Your task to perform on an android device: change text size in settings app Image 0: 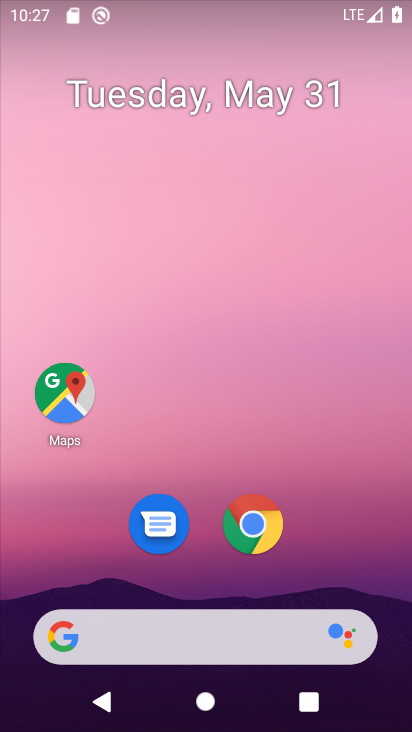
Step 0: drag from (219, 448) to (256, 1)
Your task to perform on an android device: change text size in settings app Image 1: 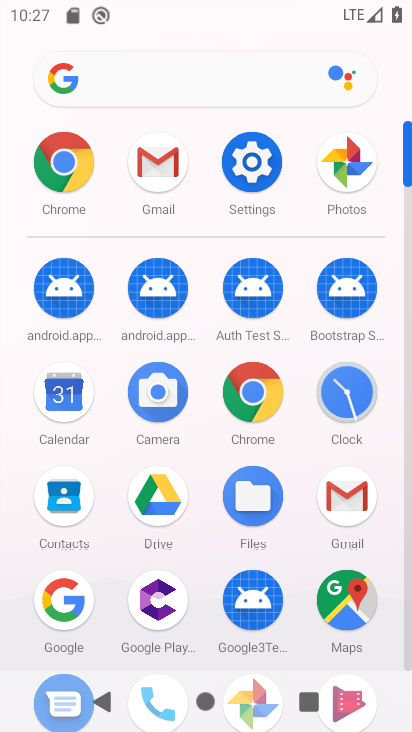
Step 1: click (260, 156)
Your task to perform on an android device: change text size in settings app Image 2: 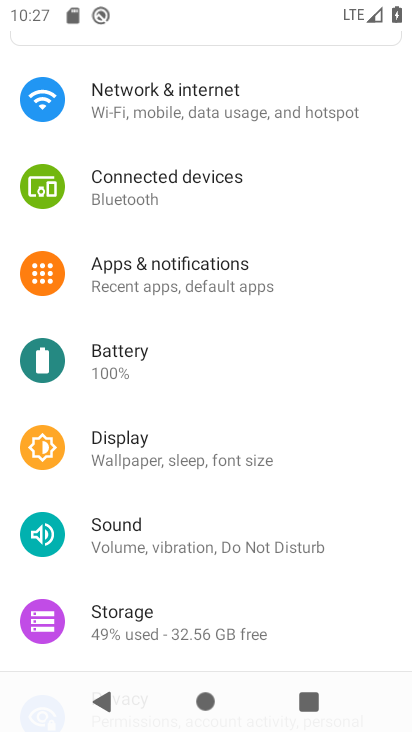
Step 2: click (184, 446)
Your task to perform on an android device: change text size in settings app Image 3: 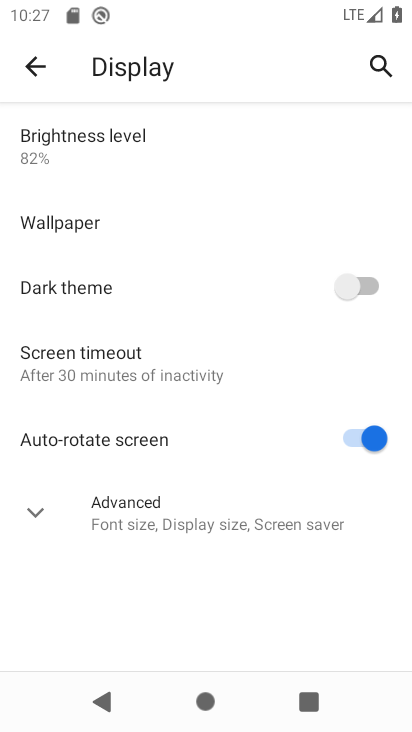
Step 3: click (30, 502)
Your task to perform on an android device: change text size in settings app Image 4: 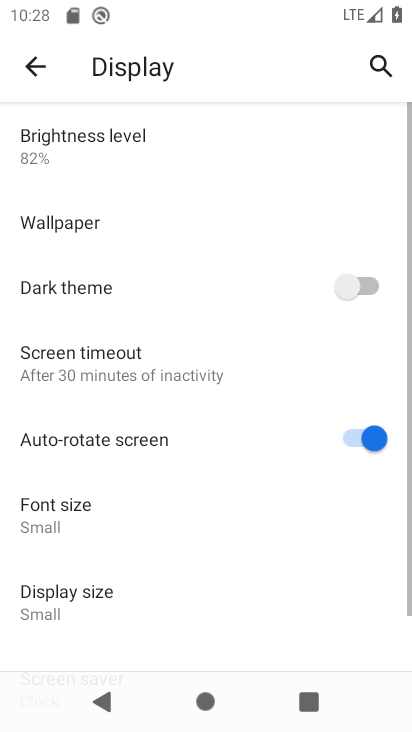
Step 4: click (55, 529)
Your task to perform on an android device: change text size in settings app Image 5: 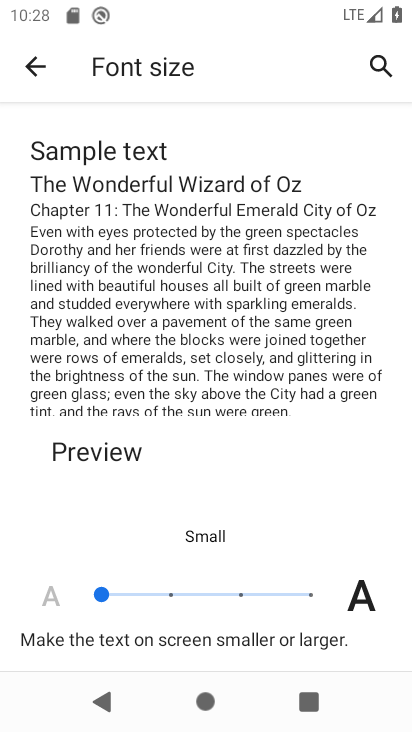
Step 5: click (166, 599)
Your task to perform on an android device: change text size in settings app Image 6: 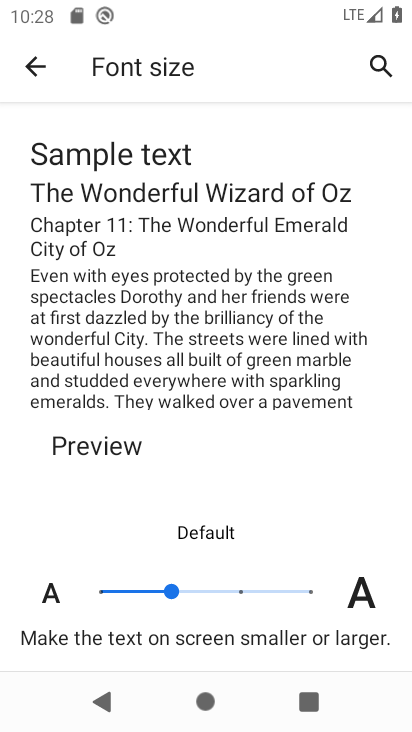
Step 6: click (40, 65)
Your task to perform on an android device: change text size in settings app Image 7: 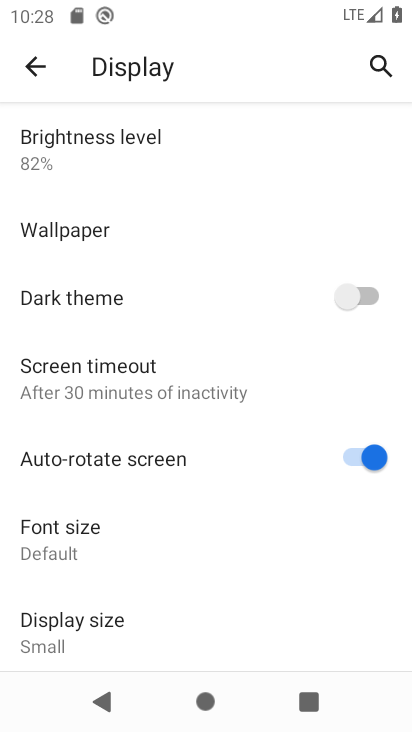
Step 7: task complete